Your task to perform on an android device: Go to wifi settings Image 0: 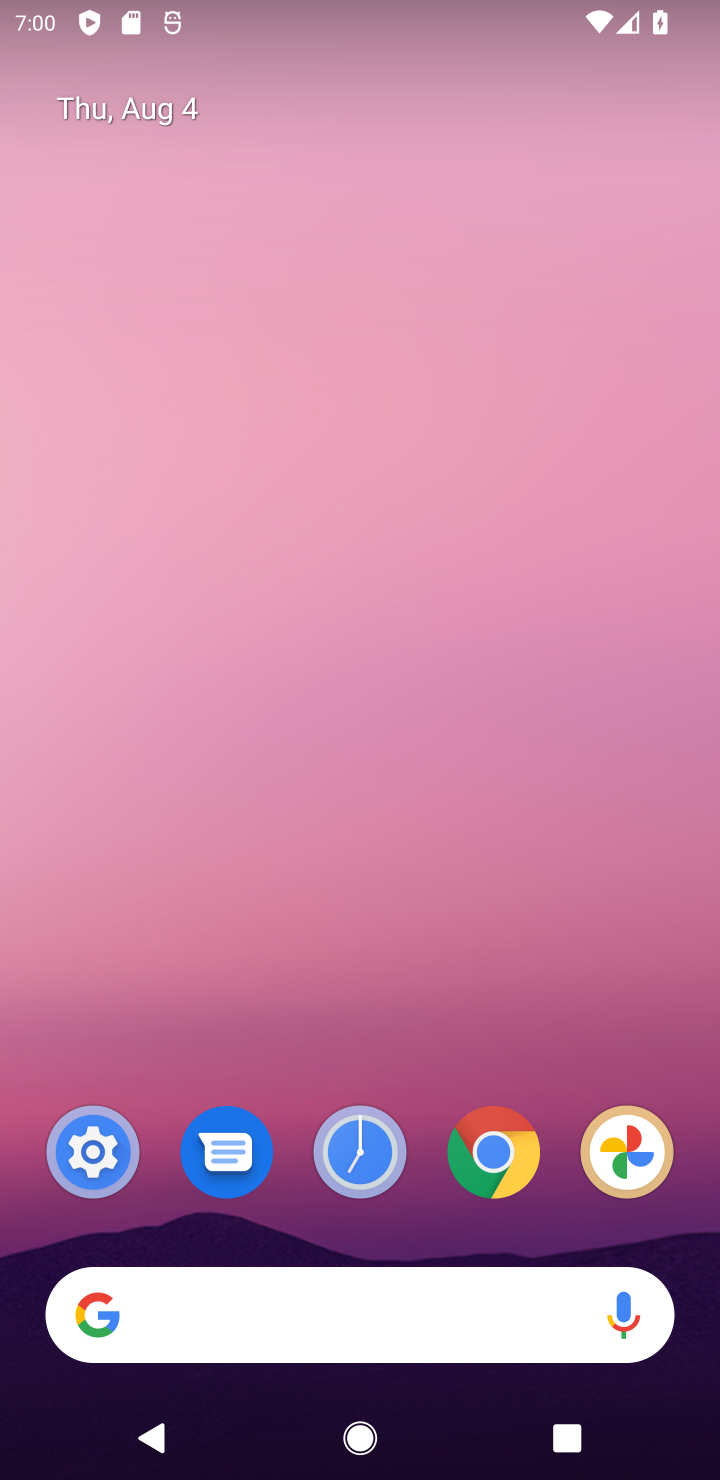
Step 0: press home button
Your task to perform on an android device: Go to wifi settings Image 1: 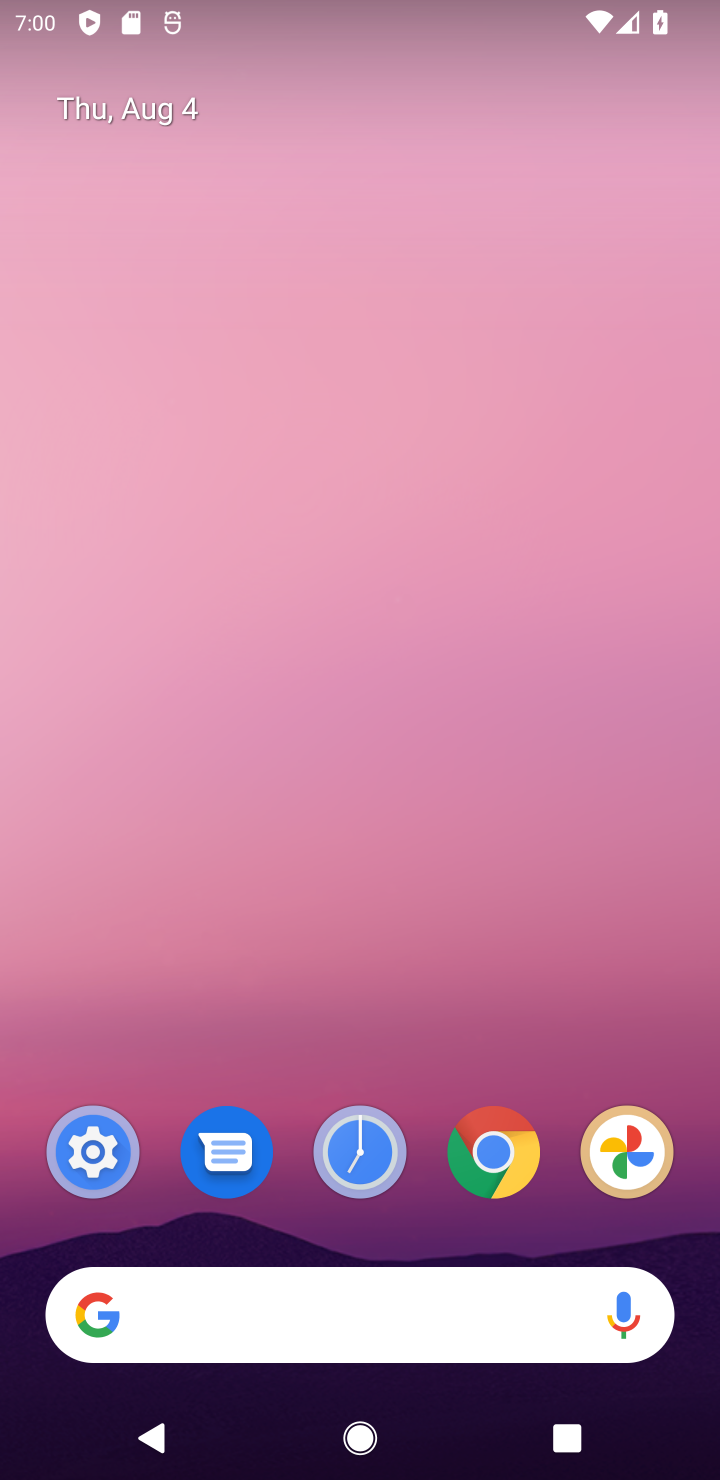
Step 1: drag from (309, 853) to (532, 301)
Your task to perform on an android device: Go to wifi settings Image 2: 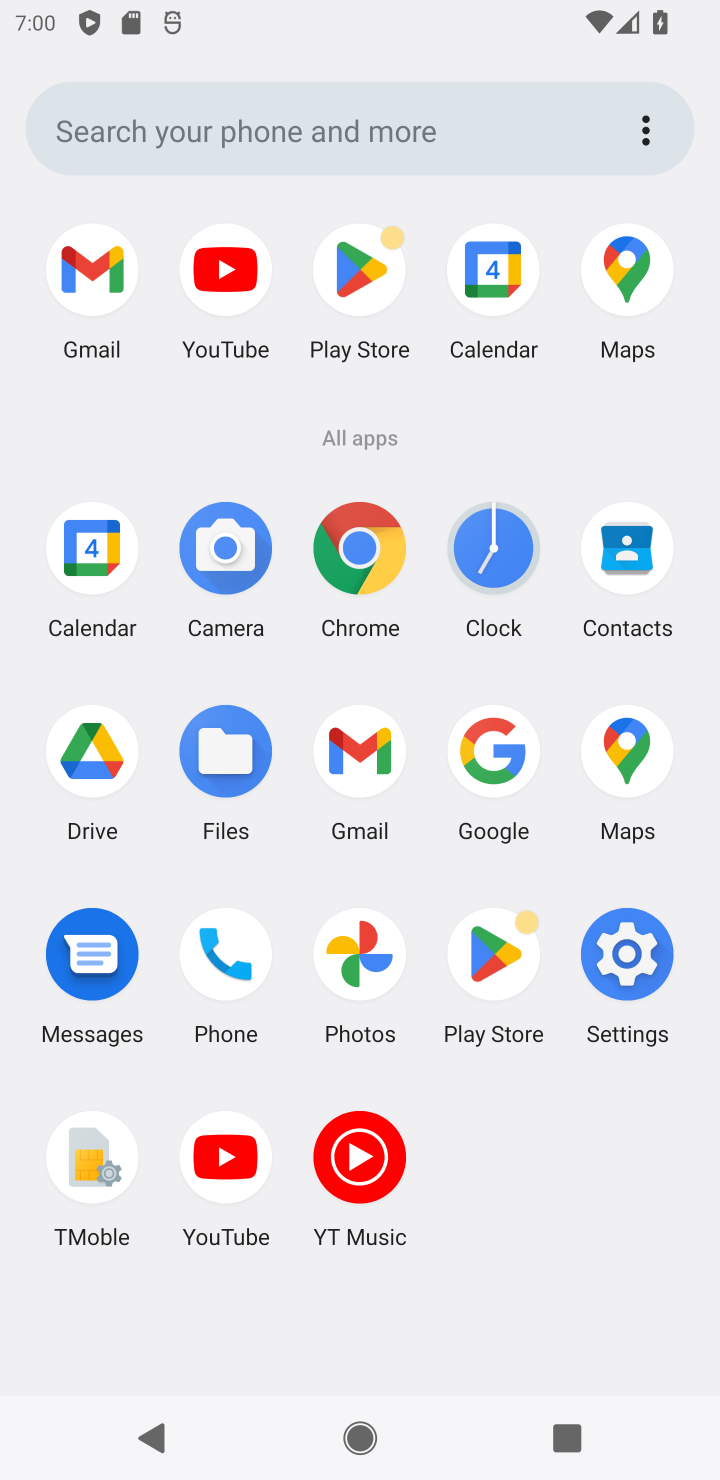
Step 2: click (651, 938)
Your task to perform on an android device: Go to wifi settings Image 3: 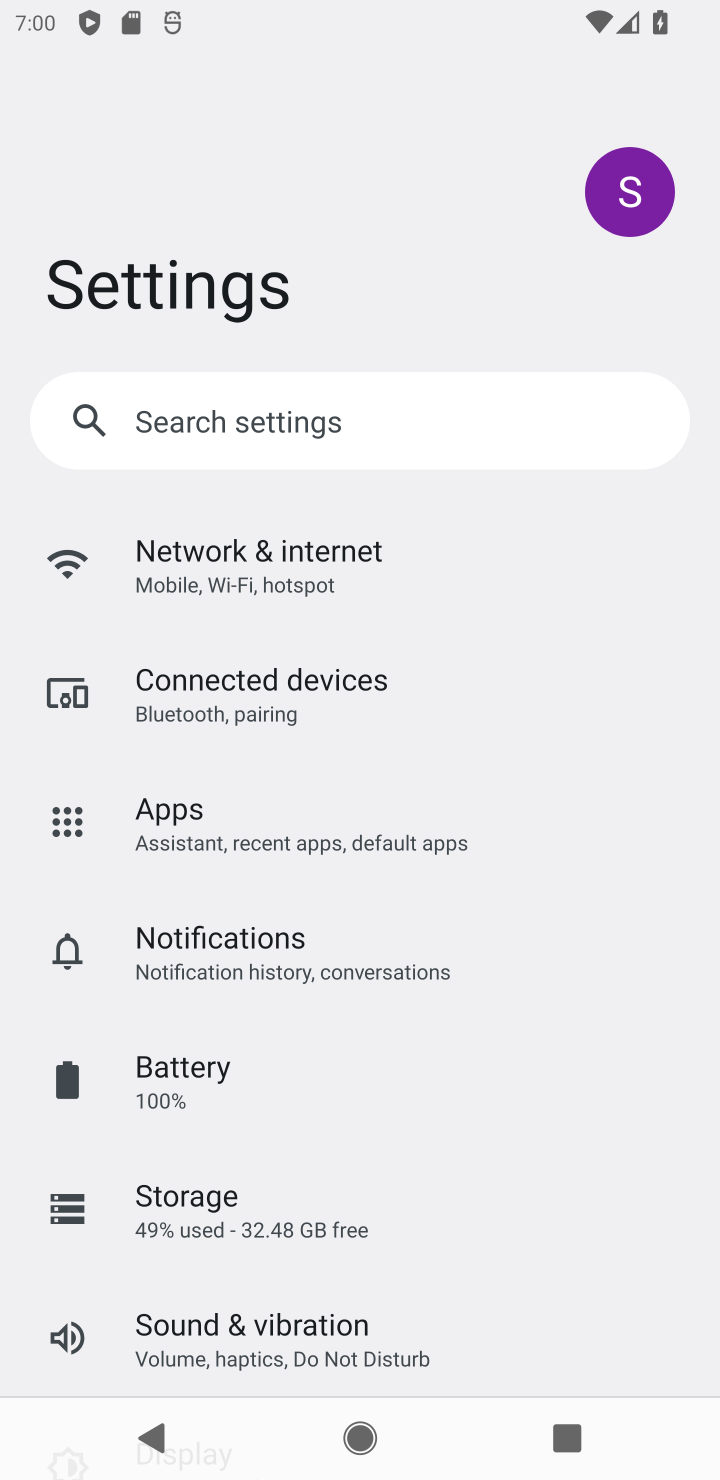
Step 3: click (305, 546)
Your task to perform on an android device: Go to wifi settings Image 4: 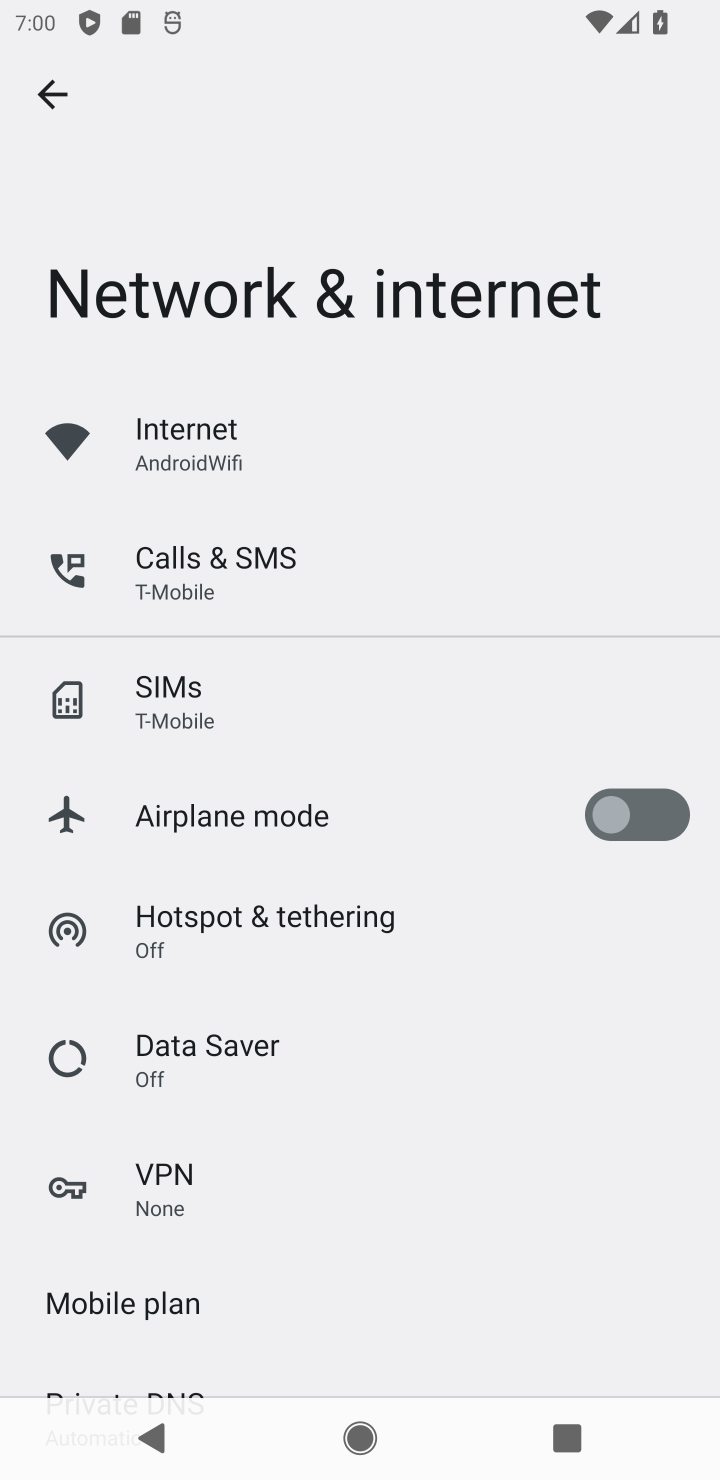
Step 4: click (235, 423)
Your task to perform on an android device: Go to wifi settings Image 5: 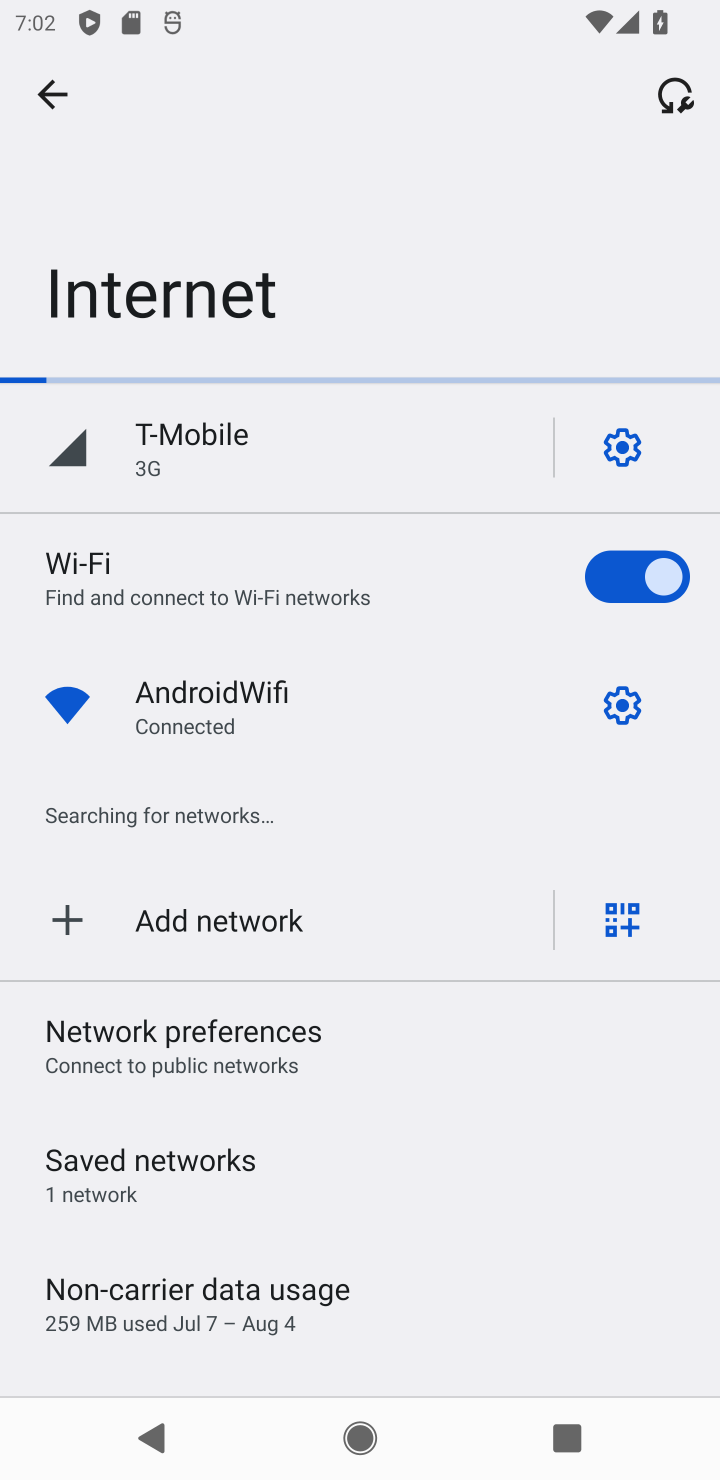
Step 5: click (653, 695)
Your task to perform on an android device: Go to wifi settings Image 6: 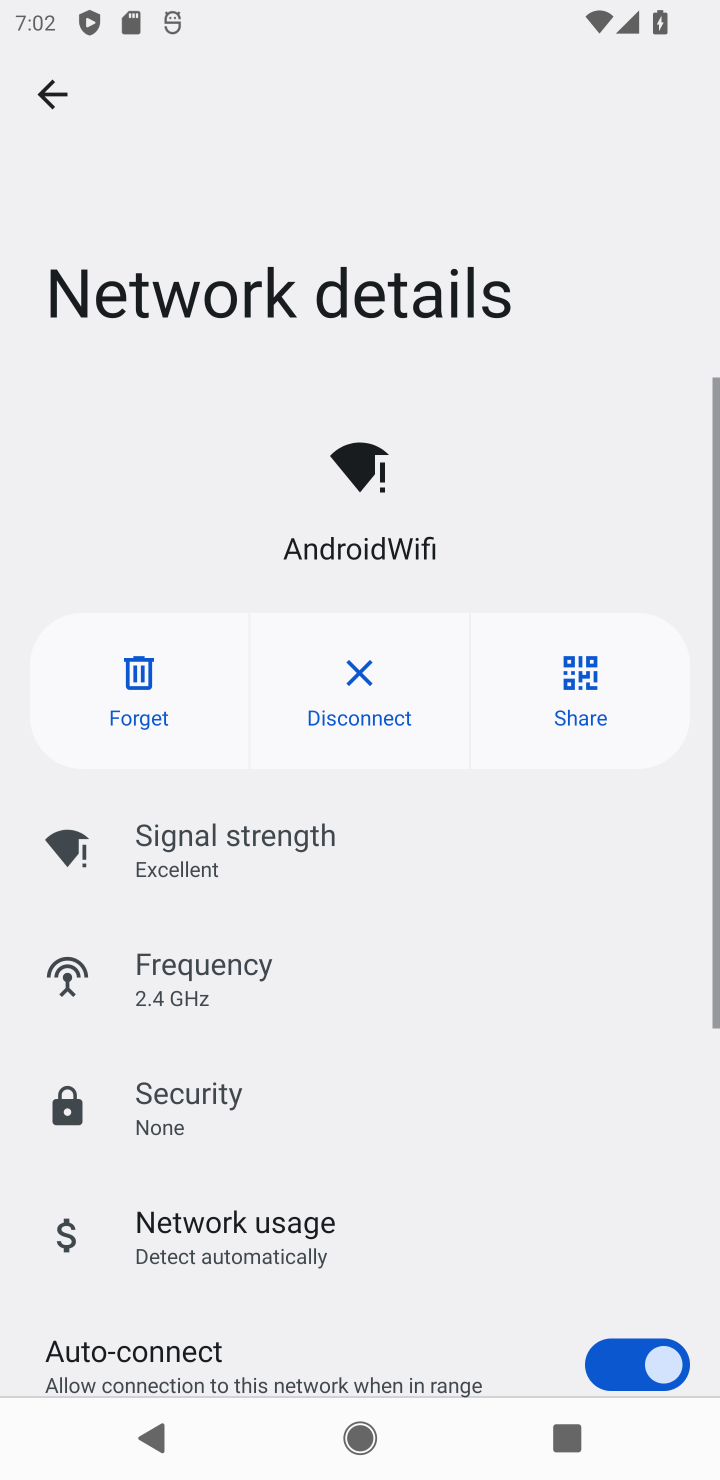
Step 6: task complete